Your task to perform on an android device: turn on wifi Image 0: 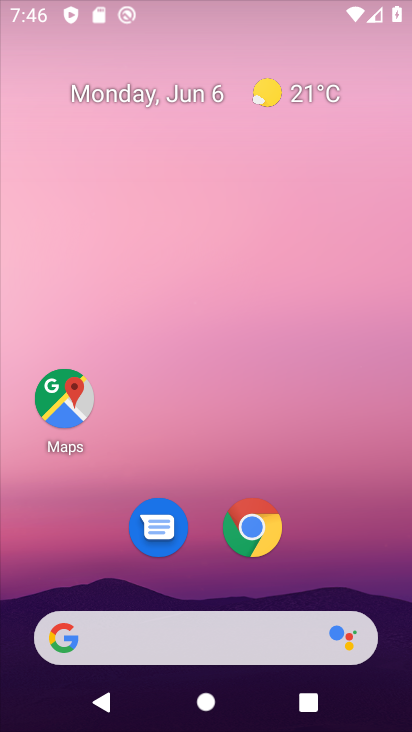
Step 0: drag from (199, 524) to (239, 239)
Your task to perform on an android device: turn on wifi Image 1: 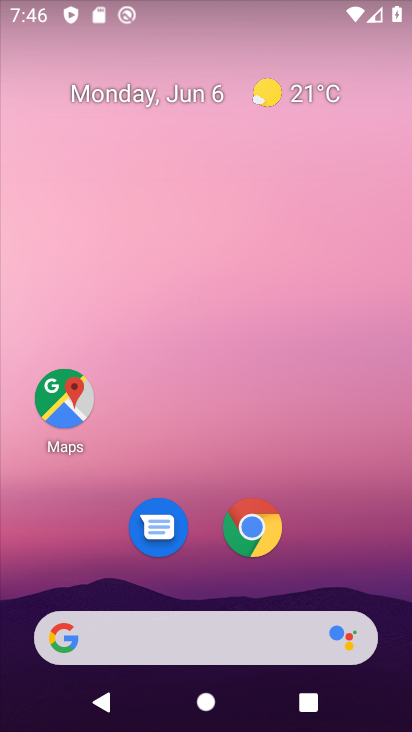
Step 1: drag from (251, 585) to (285, 232)
Your task to perform on an android device: turn on wifi Image 2: 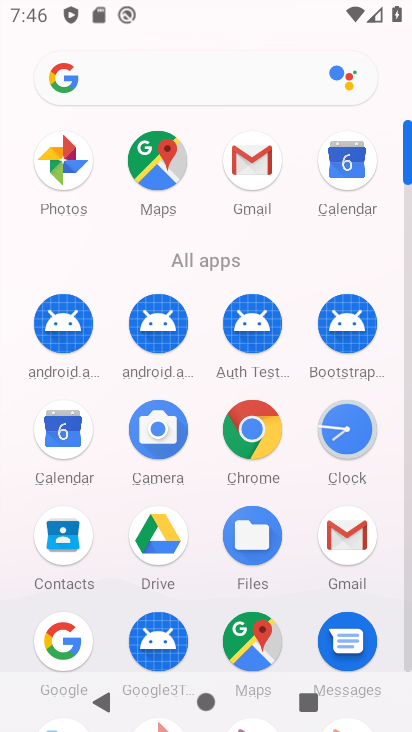
Step 2: drag from (190, 447) to (222, 185)
Your task to perform on an android device: turn on wifi Image 3: 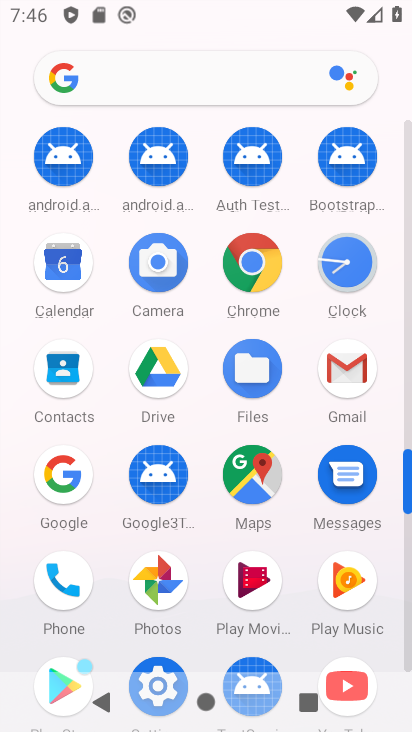
Step 3: drag from (272, 473) to (316, 205)
Your task to perform on an android device: turn on wifi Image 4: 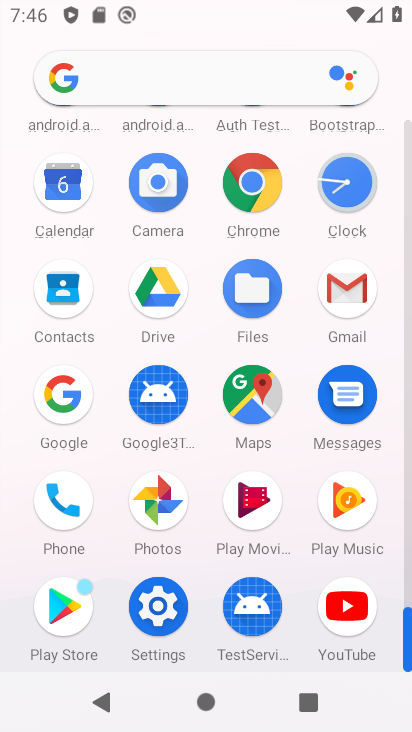
Step 4: click (166, 616)
Your task to perform on an android device: turn on wifi Image 5: 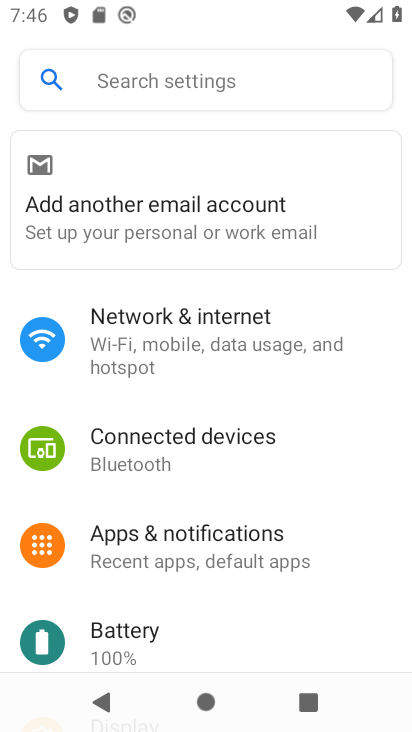
Step 5: click (225, 338)
Your task to perform on an android device: turn on wifi Image 6: 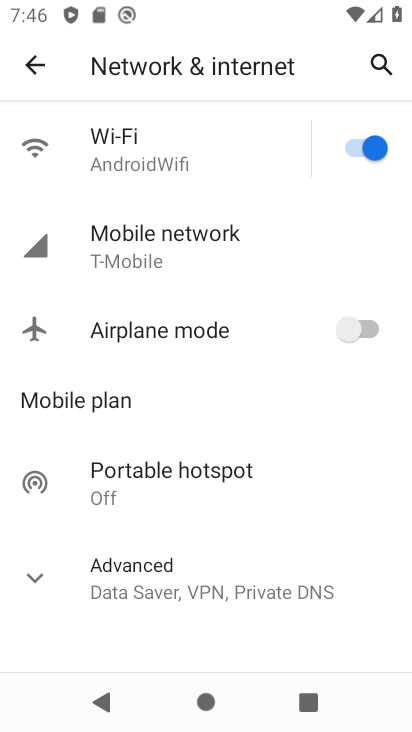
Step 6: task complete